Your task to perform on an android device: Turn off the flashlight Image 0: 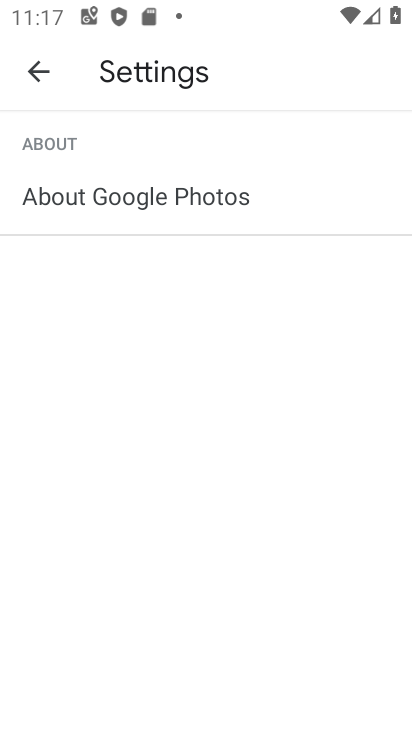
Step 0: press home button
Your task to perform on an android device: Turn off the flashlight Image 1: 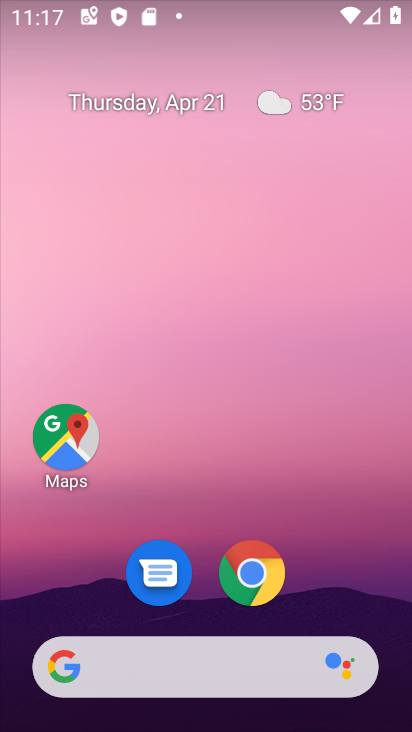
Step 1: task complete